Your task to perform on an android device: open the mobile data screen to see how much data has been used Image 0: 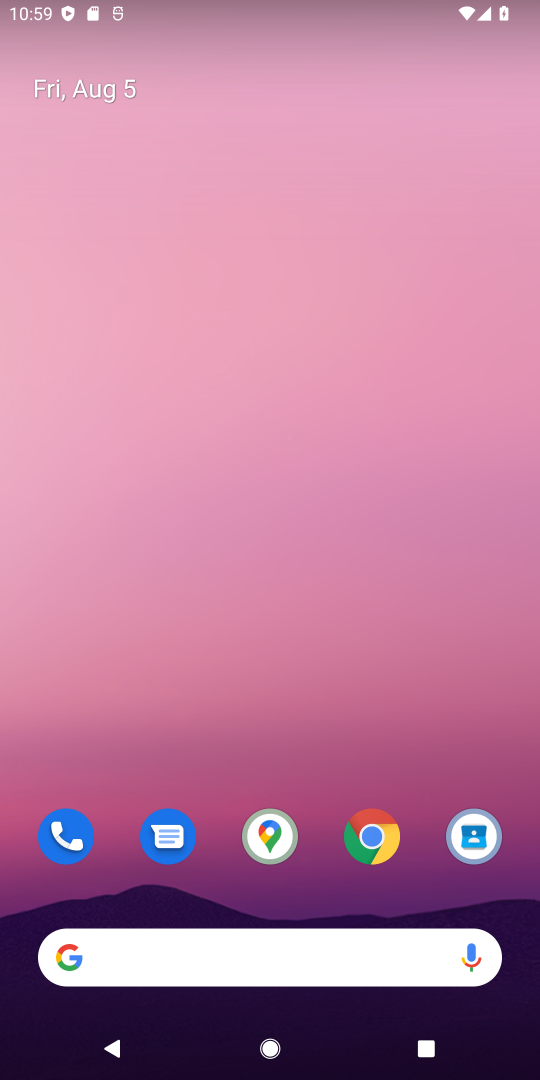
Step 0: drag from (358, 716) to (425, 228)
Your task to perform on an android device: open the mobile data screen to see how much data has been used Image 1: 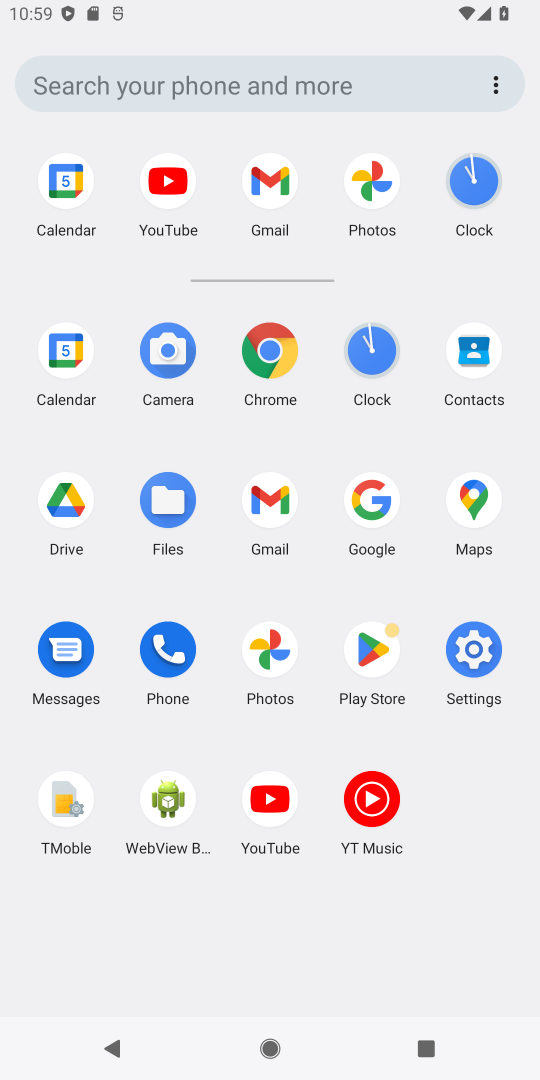
Step 1: click (458, 633)
Your task to perform on an android device: open the mobile data screen to see how much data has been used Image 2: 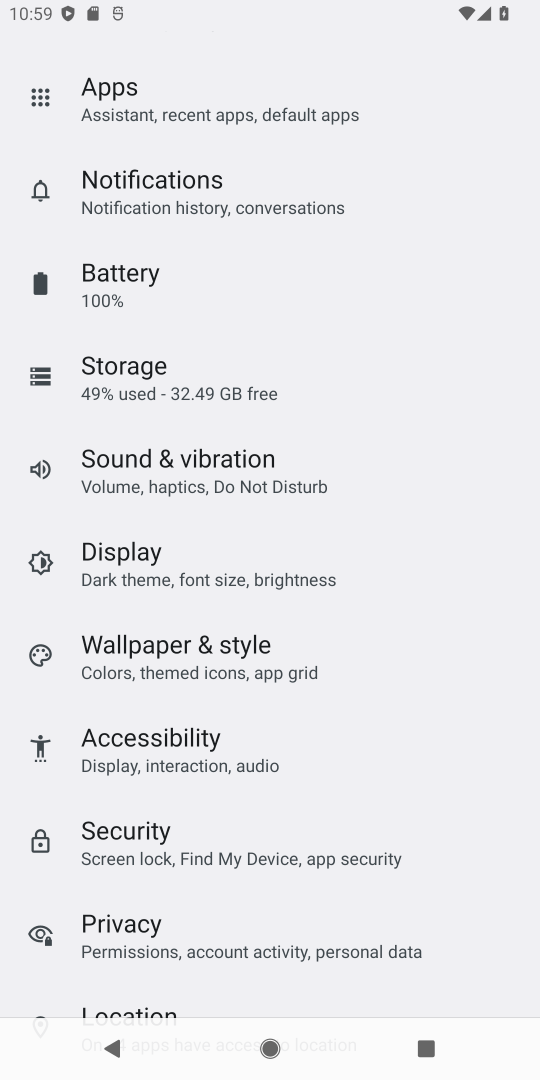
Step 2: drag from (390, 239) to (344, 799)
Your task to perform on an android device: open the mobile data screen to see how much data has been used Image 3: 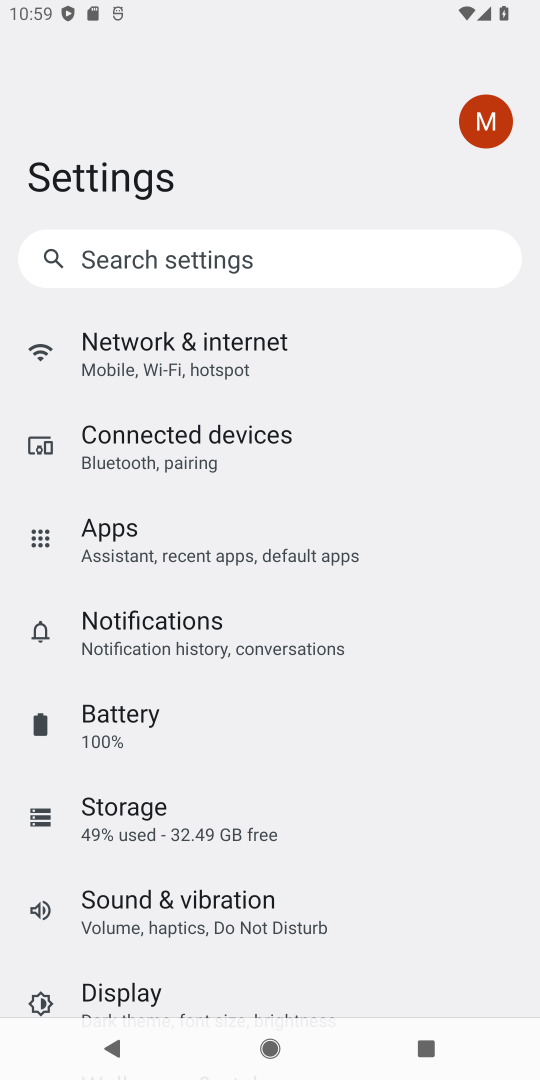
Step 3: click (237, 364)
Your task to perform on an android device: open the mobile data screen to see how much data has been used Image 4: 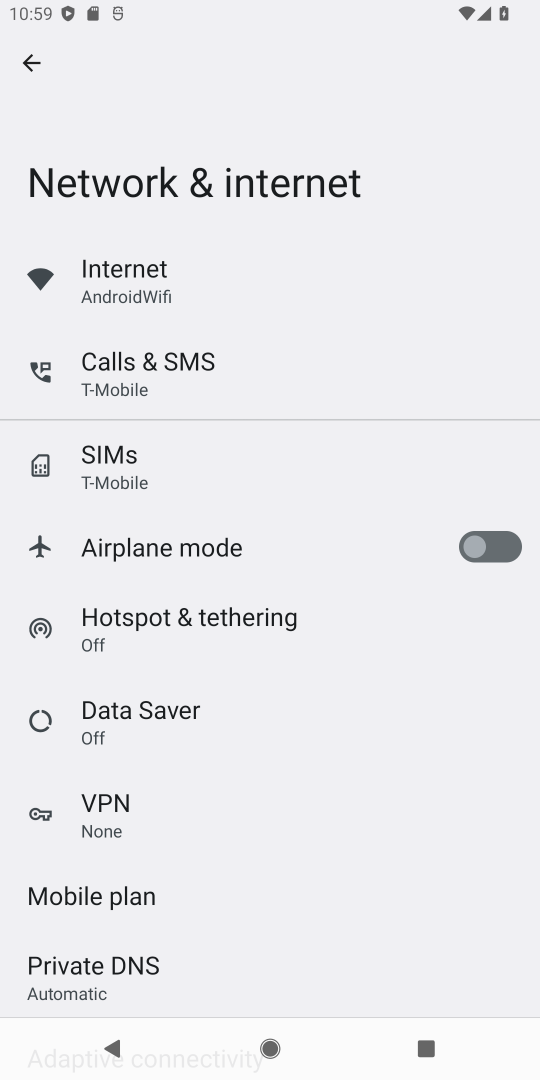
Step 4: click (145, 295)
Your task to perform on an android device: open the mobile data screen to see how much data has been used Image 5: 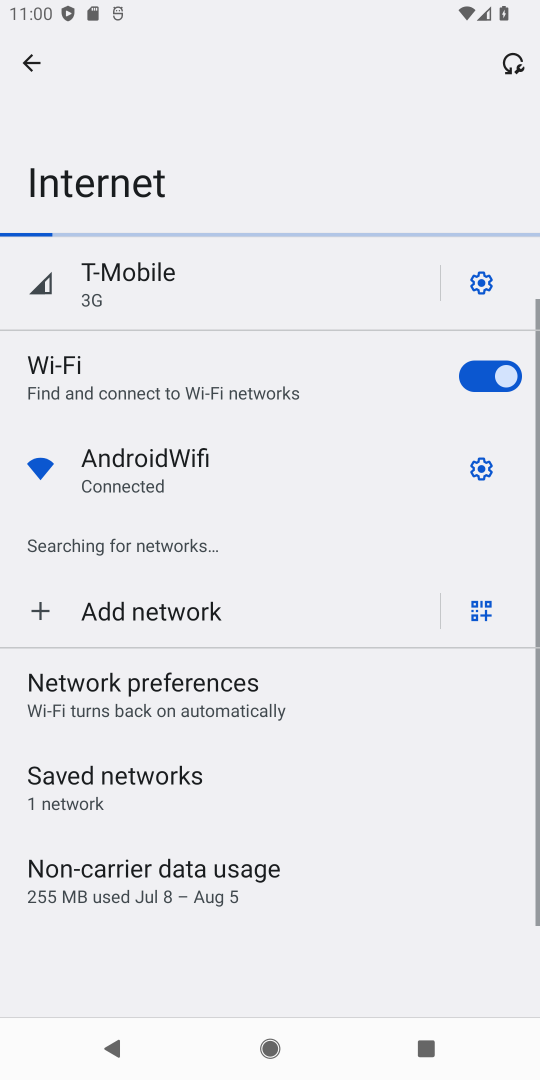
Step 5: click (275, 285)
Your task to perform on an android device: open the mobile data screen to see how much data has been used Image 6: 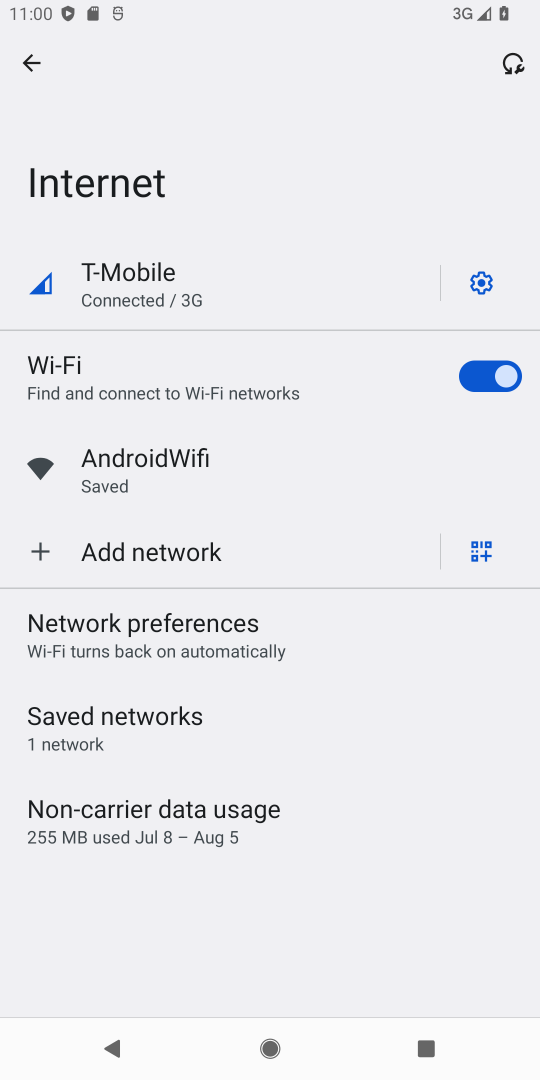
Step 6: click (281, 284)
Your task to perform on an android device: open the mobile data screen to see how much data has been used Image 7: 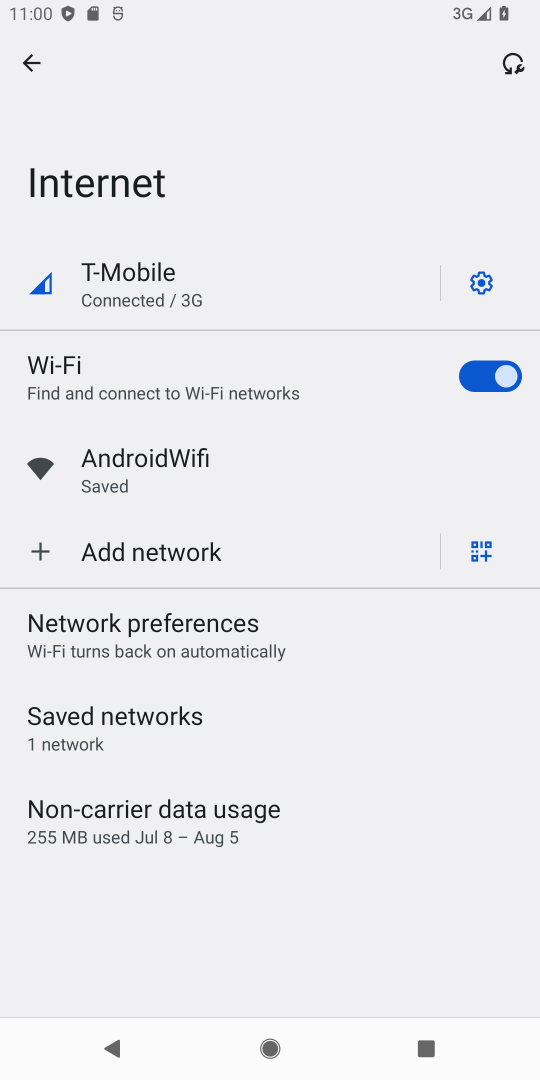
Step 7: click (480, 281)
Your task to perform on an android device: open the mobile data screen to see how much data has been used Image 8: 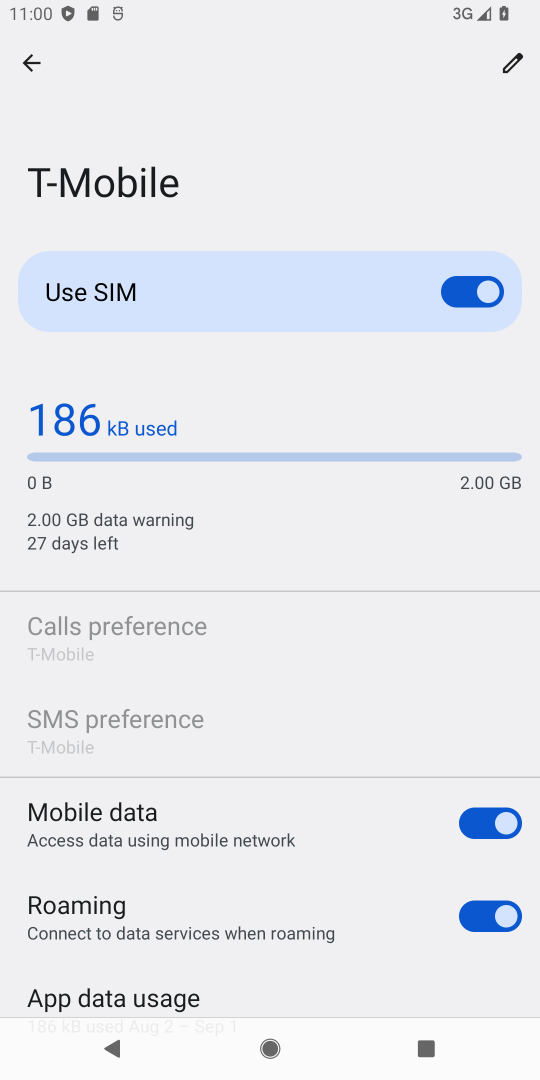
Step 8: task complete